Your task to perform on an android device: Open internet settings Image 0: 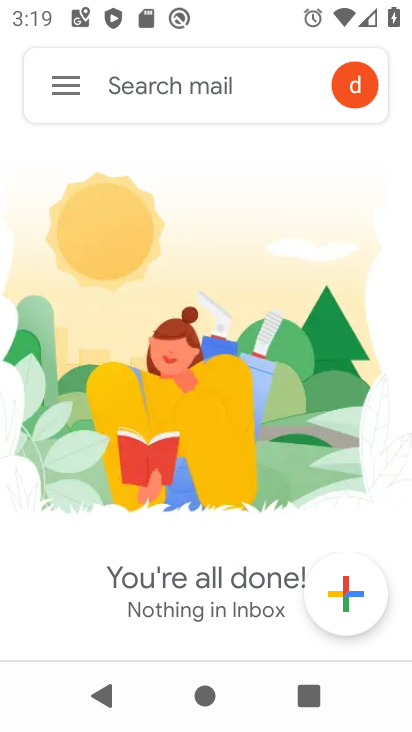
Step 0: press home button
Your task to perform on an android device: Open internet settings Image 1: 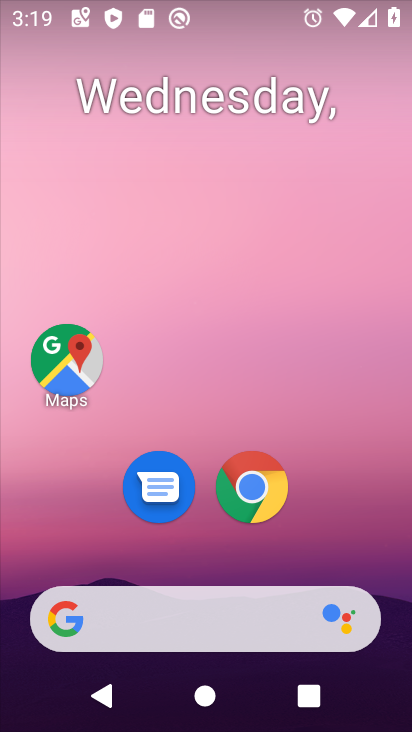
Step 1: drag from (366, 538) to (357, 120)
Your task to perform on an android device: Open internet settings Image 2: 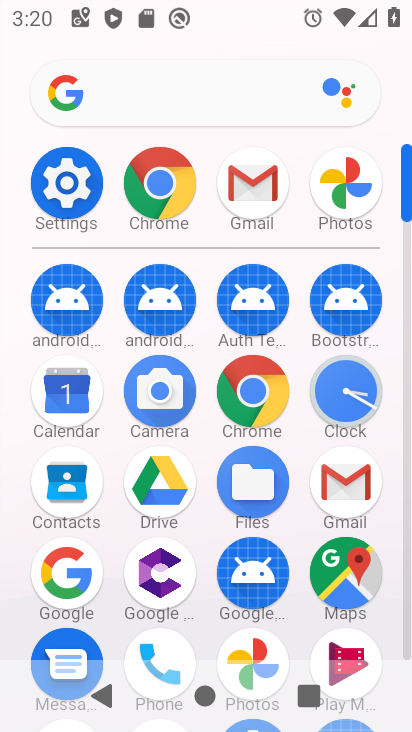
Step 2: click (65, 208)
Your task to perform on an android device: Open internet settings Image 3: 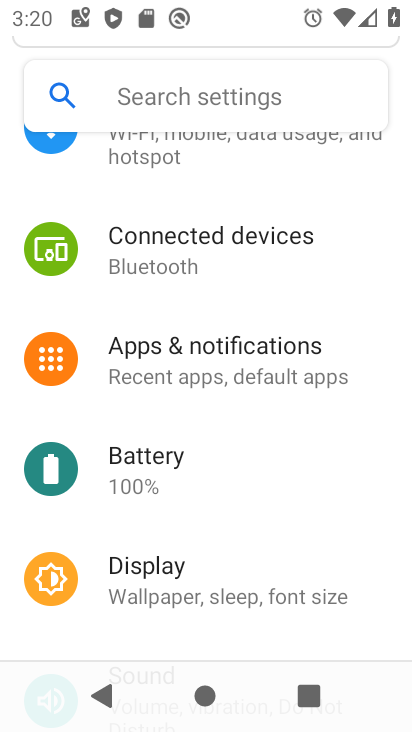
Step 3: drag from (367, 298) to (367, 343)
Your task to perform on an android device: Open internet settings Image 4: 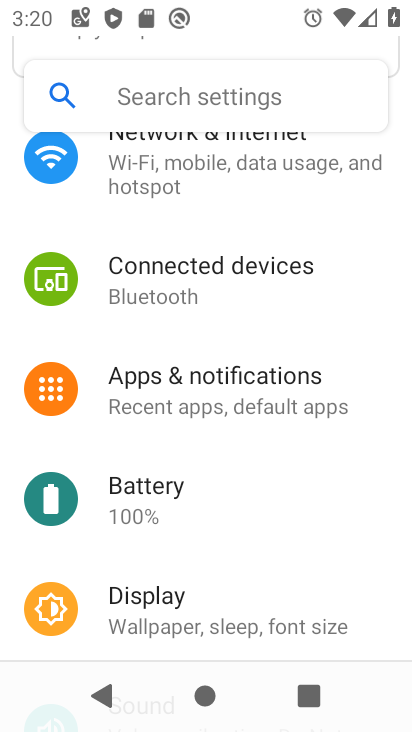
Step 4: drag from (356, 283) to (355, 362)
Your task to perform on an android device: Open internet settings Image 5: 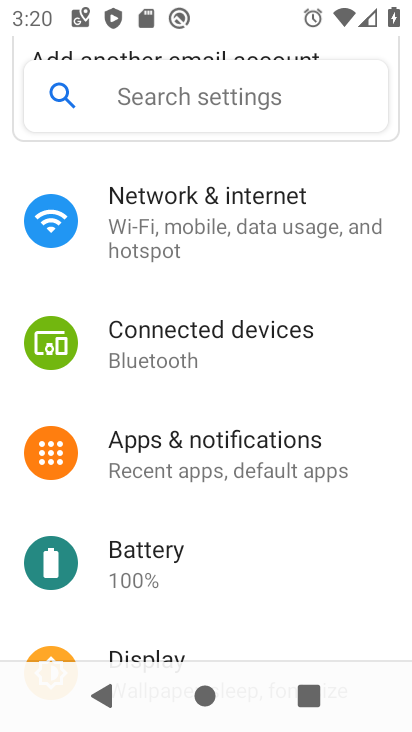
Step 5: drag from (351, 296) to (359, 374)
Your task to perform on an android device: Open internet settings Image 6: 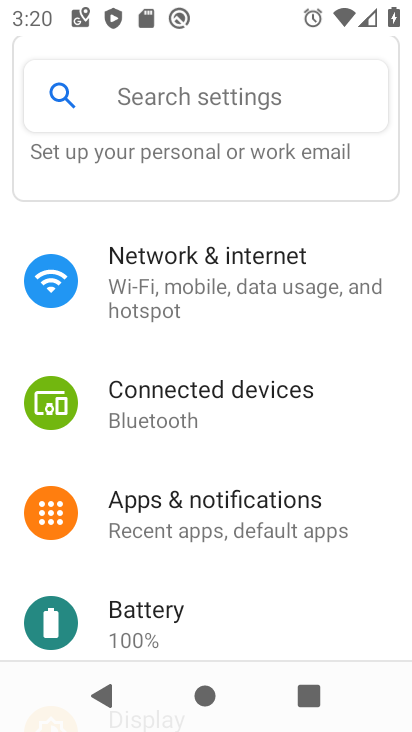
Step 6: drag from (342, 243) to (346, 456)
Your task to perform on an android device: Open internet settings Image 7: 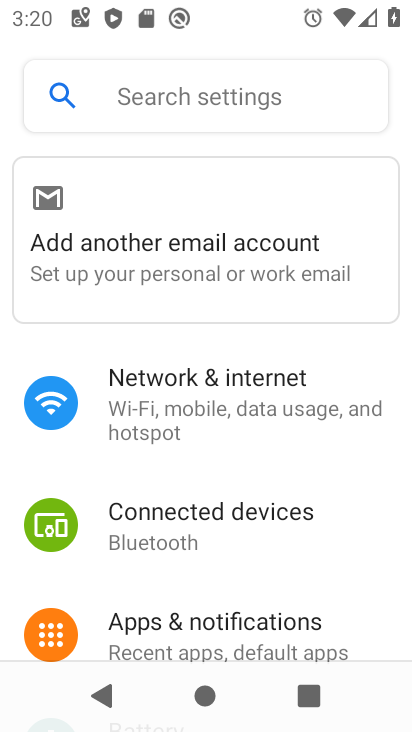
Step 7: click (271, 413)
Your task to perform on an android device: Open internet settings Image 8: 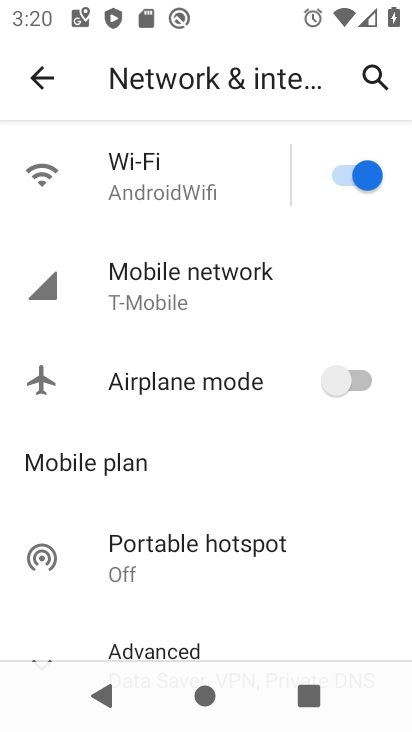
Step 8: task complete